Your task to perform on an android device: Open my contact list Image 0: 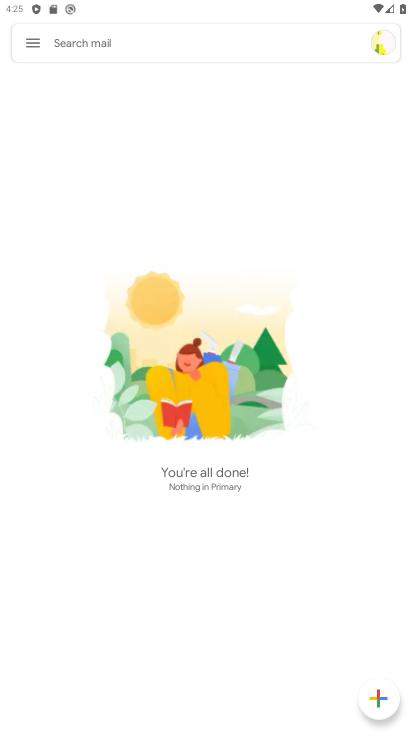
Step 0: press home button
Your task to perform on an android device: Open my contact list Image 1: 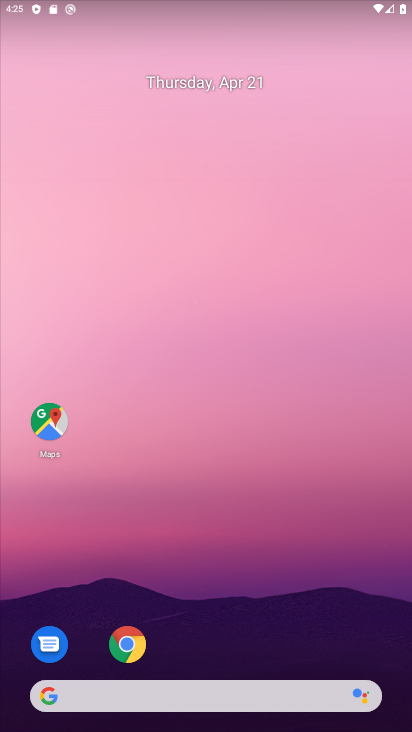
Step 1: drag from (211, 707) to (214, 238)
Your task to perform on an android device: Open my contact list Image 2: 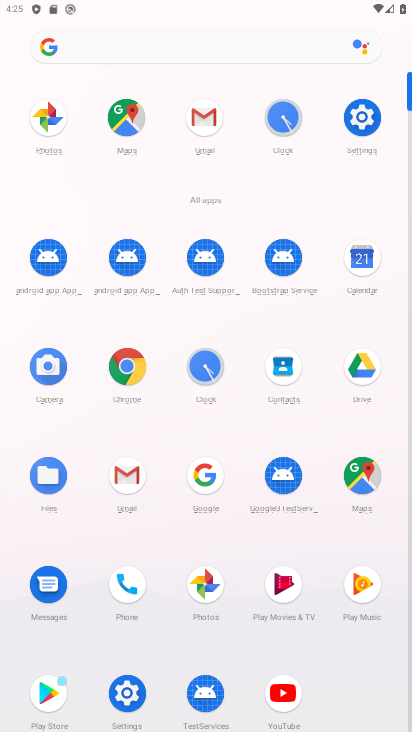
Step 2: click (283, 366)
Your task to perform on an android device: Open my contact list Image 3: 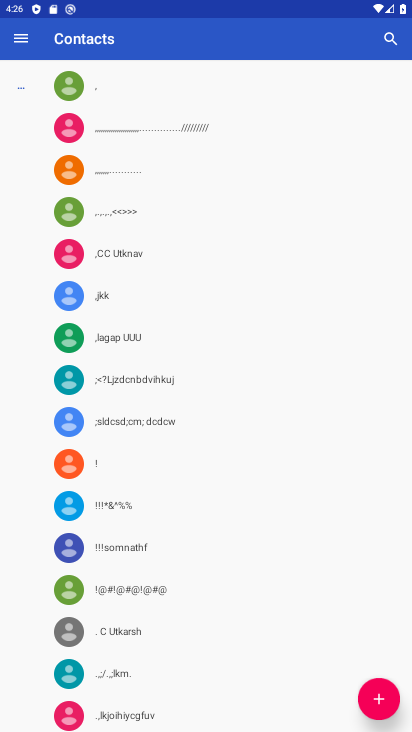
Step 3: task complete